Your task to perform on an android device: Go to sound settings Image 0: 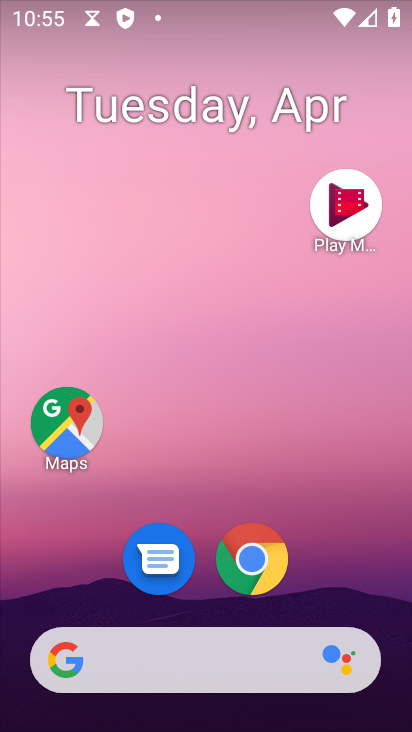
Step 0: drag from (286, 380) to (246, 142)
Your task to perform on an android device: Go to sound settings Image 1: 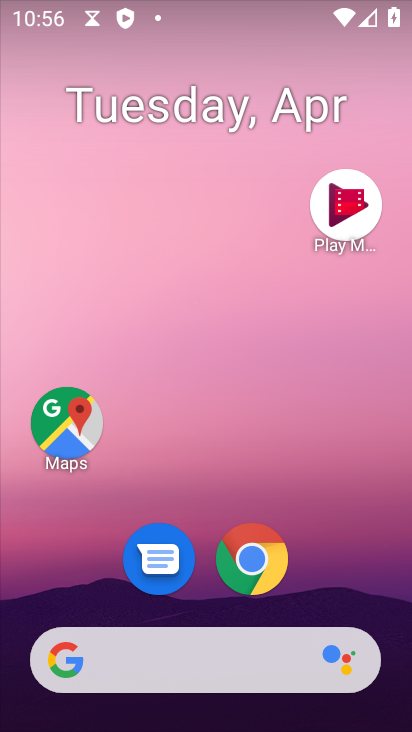
Step 1: drag from (328, 555) to (239, 10)
Your task to perform on an android device: Go to sound settings Image 2: 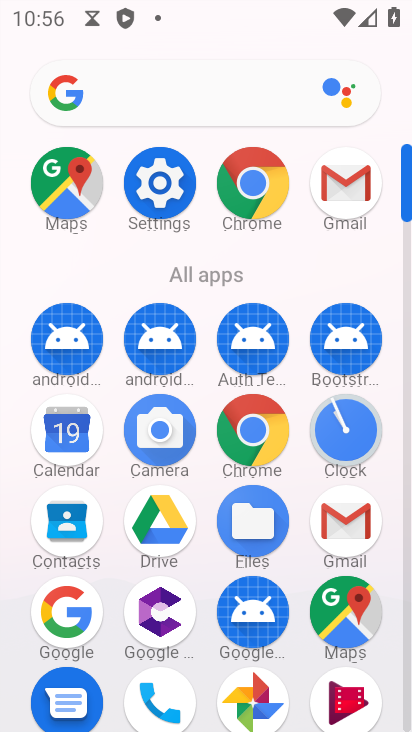
Step 2: click (176, 189)
Your task to perform on an android device: Go to sound settings Image 3: 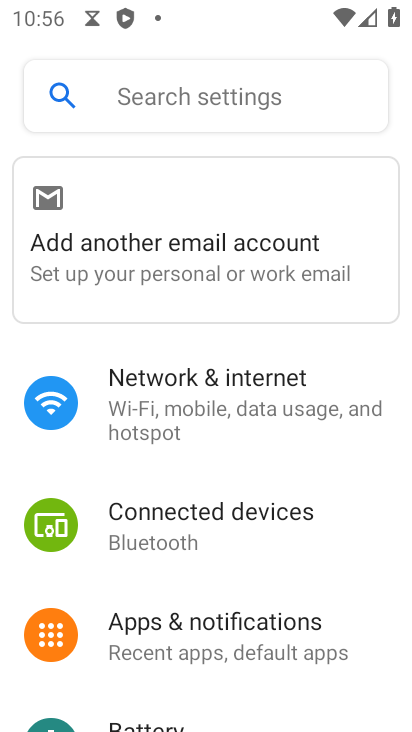
Step 3: drag from (350, 593) to (308, 144)
Your task to perform on an android device: Go to sound settings Image 4: 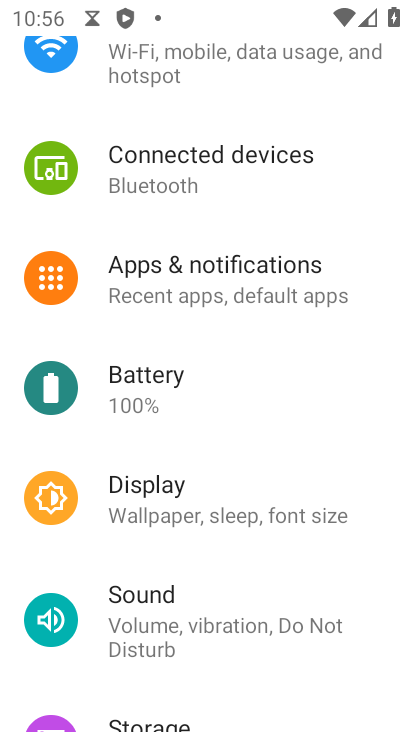
Step 4: click (237, 623)
Your task to perform on an android device: Go to sound settings Image 5: 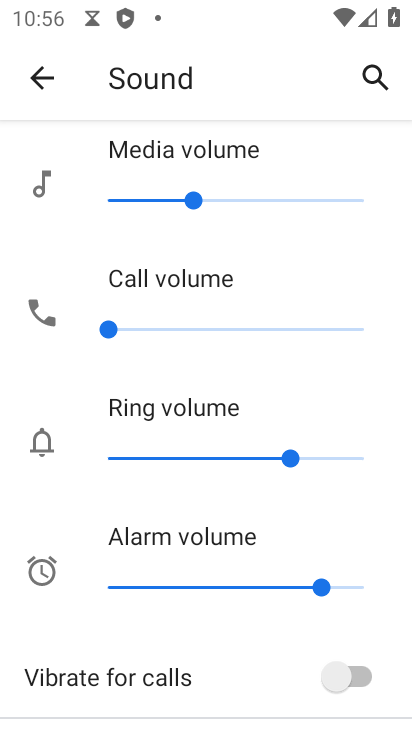
Step 5: task complete